Your task to perform on an android device: What's the weather? Image 0: 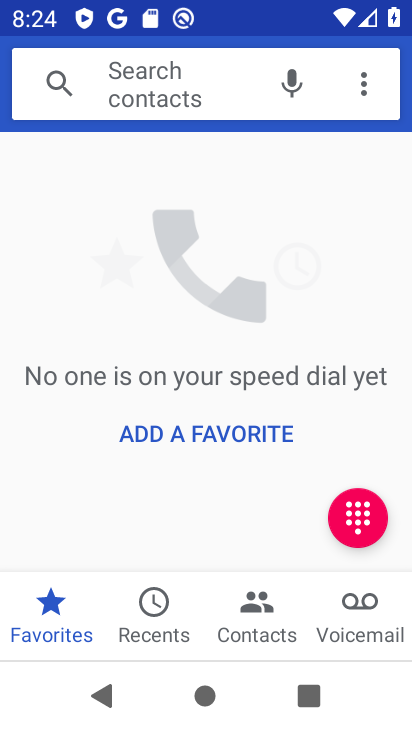
Step 0: press back button
Your task to perform on an android device: What's the weather? Image 1: 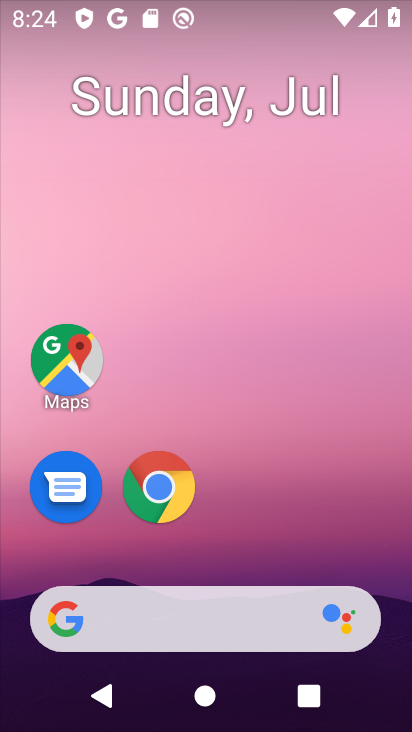
Step 1: click (172, 633)
Your task to perform on an android device: What's the weather? Image 2: 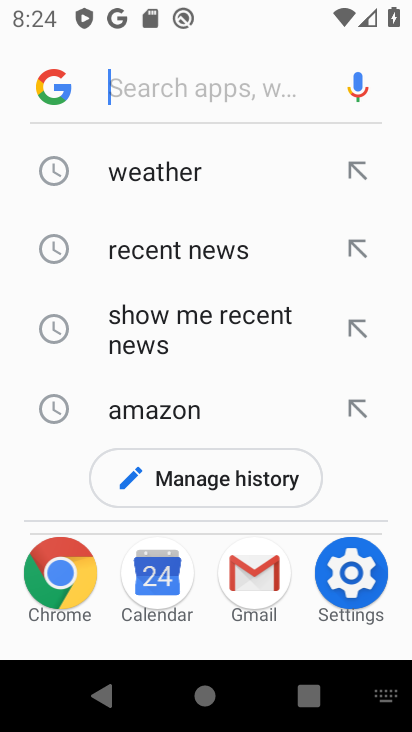
Step 2: click (162, 165)
Your task to perform on an android device: What's the weather? Image 3: 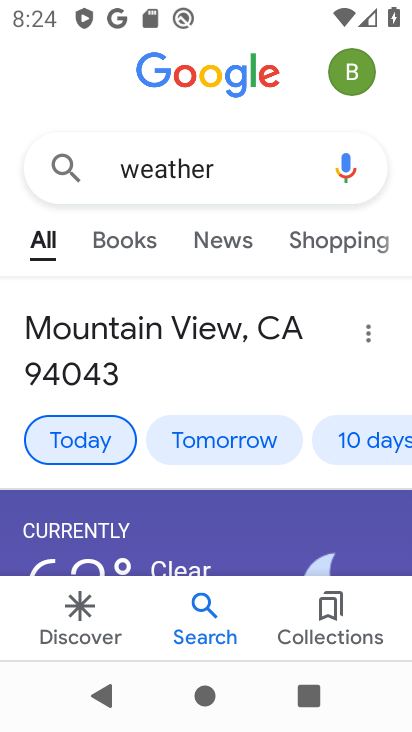
Step 3: task complete